Your task to perform on an android device: Go to CNN.com Image 0: 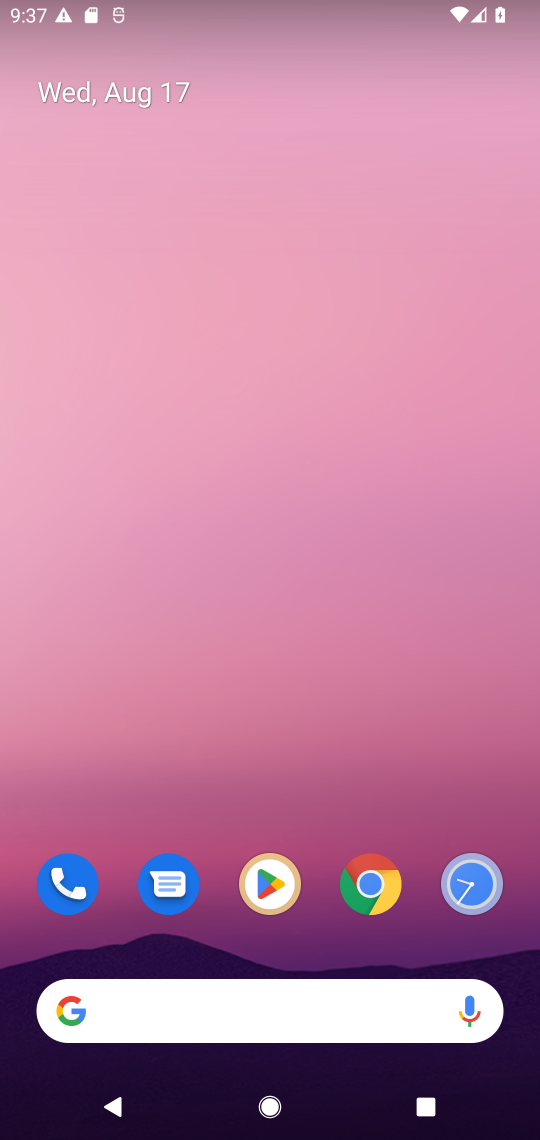
Step 0: click (204, 992)
Your task to perform on an android device: Go to CNN.com Image 1: 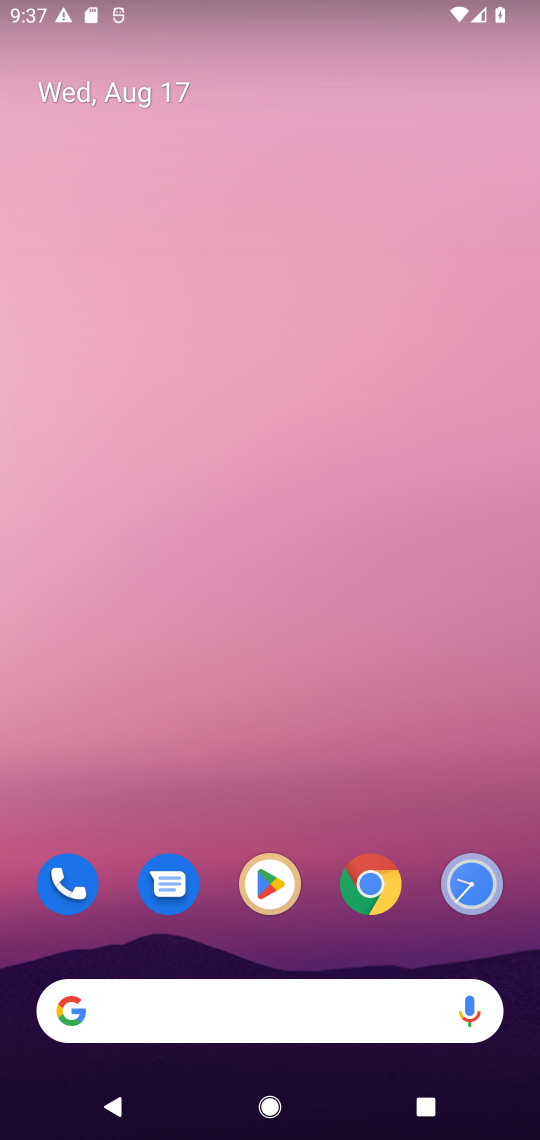
Step 1: task complete